Your task to perform on an android device: Open network settings Image 0: 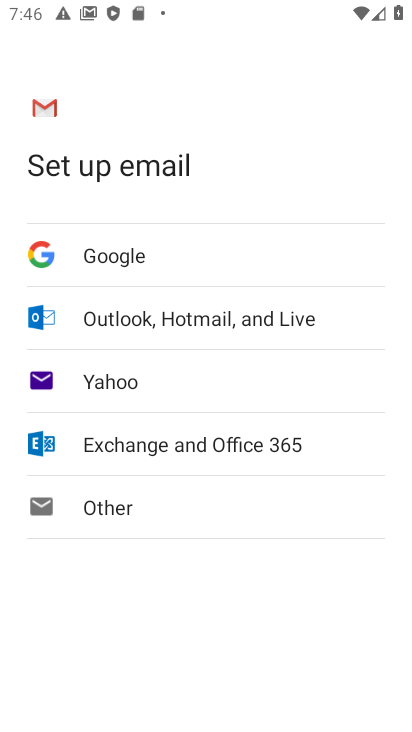
Step 0: press home button
Your task to perform on an android device: Open network settings Image 1: 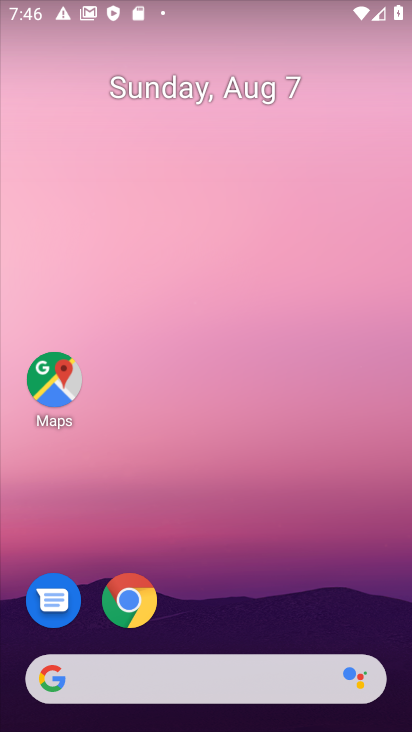
Step 1: drag from (198, 619) to (184, 19)
Your task to perform on an android device: Open network settings Image 2: 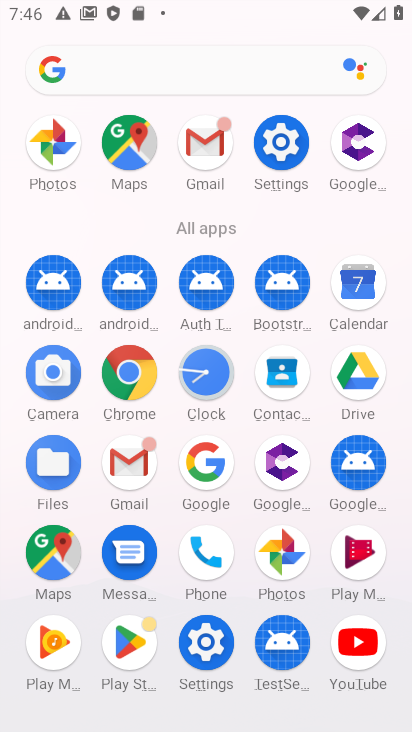
Step 2: click (201, 644)
Your task to perform on an android device: Open network settings Image 3: 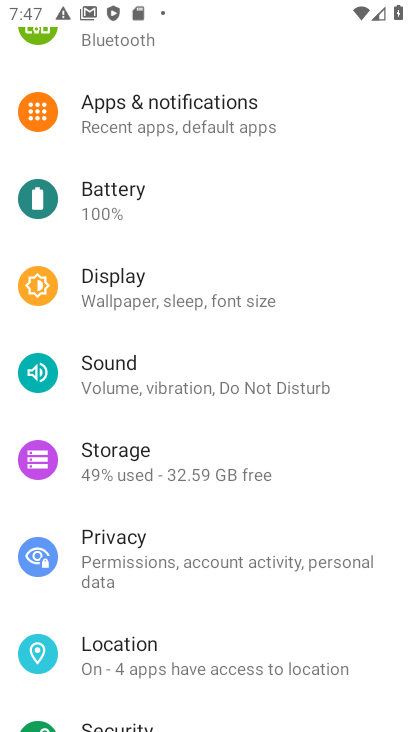
Step 3: drag from (195, 597) to (190, 726)
Your task to perform on an android device: Open network settings Image 4: 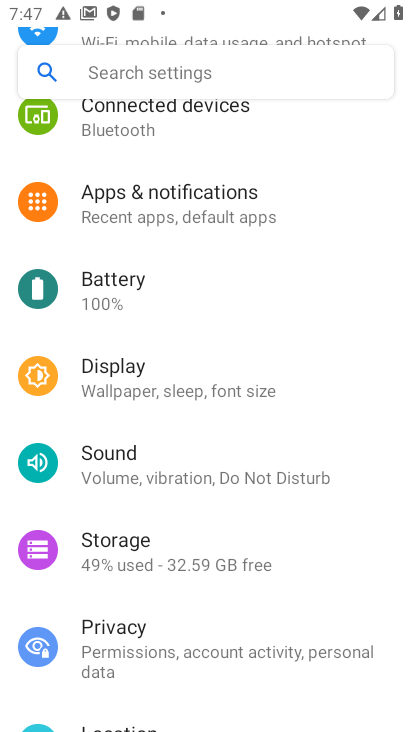
Step 4: drag from (168, 415) to (165, 698)
Your task to perform on an android device: Open network settings Image 5: 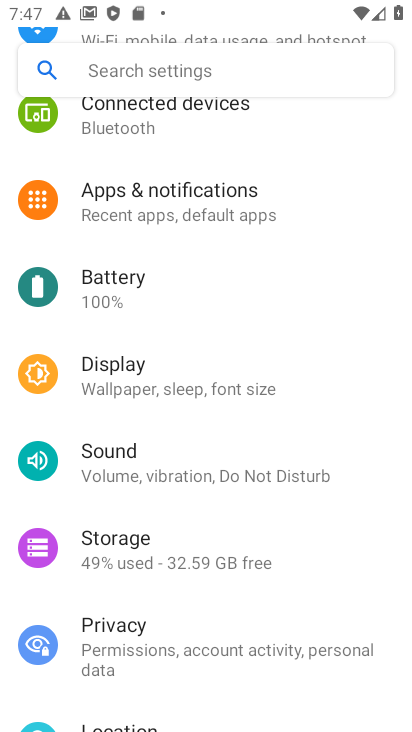
Step 5: drag from (215, 654) to (161, 680)
Your task to perform on an android device: Open network settings Image 6: 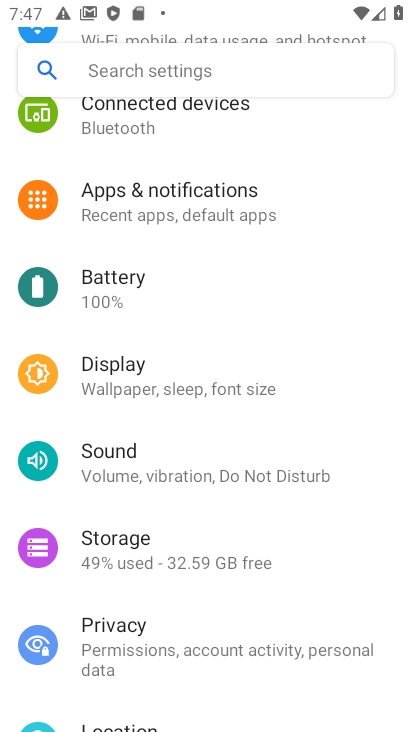
Step 6: click (215, 163)
Your task to perform on an android device: Open network settings Image 7: 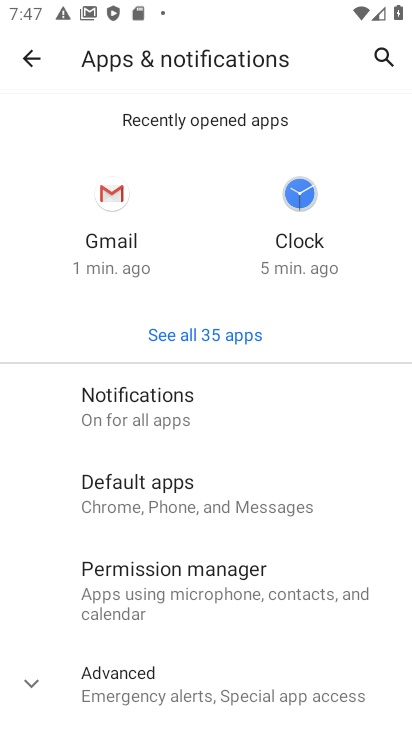
Step 7: click (32, 49)
Your task to perform on an android device: Open network settings Image 8: 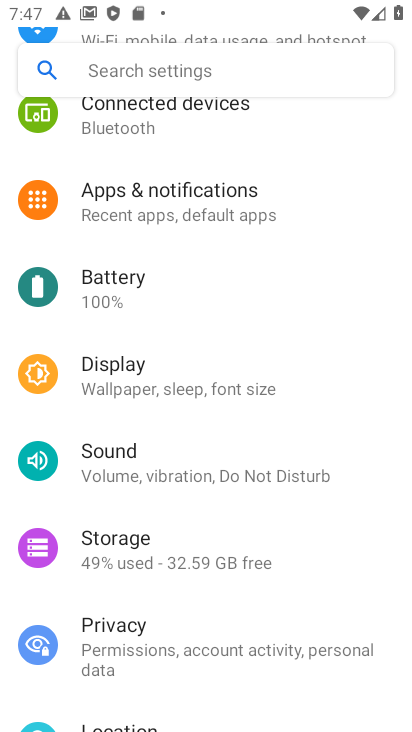
Step 8: drag from (228, 205) to (228, 433)
Your task to perform on an android device: Open network settings Image 9: 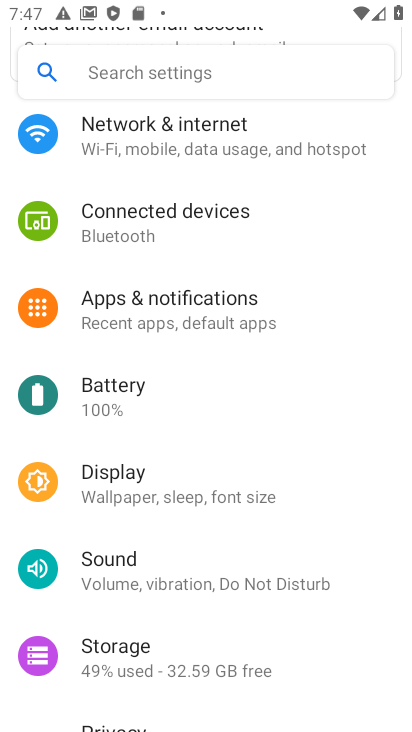
Step 9: click (152, 149)
Your task to perform on an android device: Open network settings Image 10: 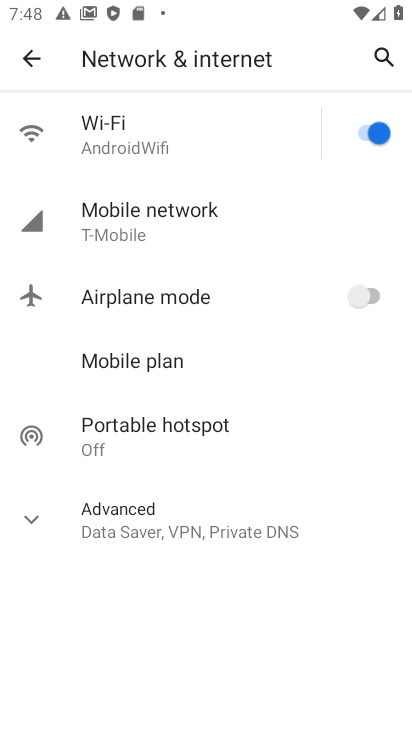
Step 10: task complete